Your task to perform on an android device: check the backup settings in the google photos Image 0: 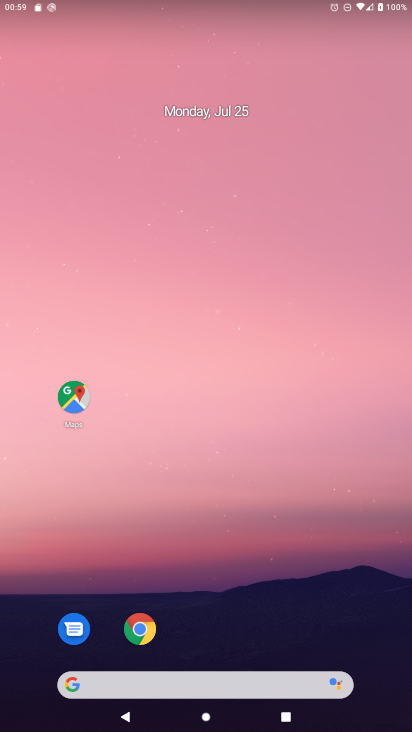
Step 0: drag from (225, 368) to (272, 116)
Your task to perform on an android device: check the backup settings in the google photos Image 1: 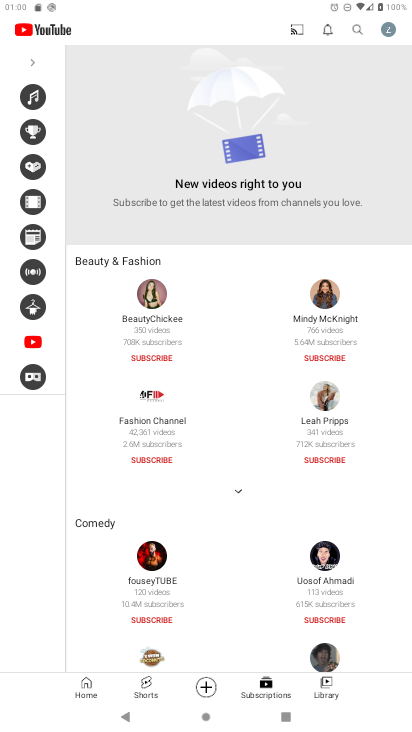
Step 1: press home button
Your task to perform on an android device: check the backup settings in the google photos Image 2: 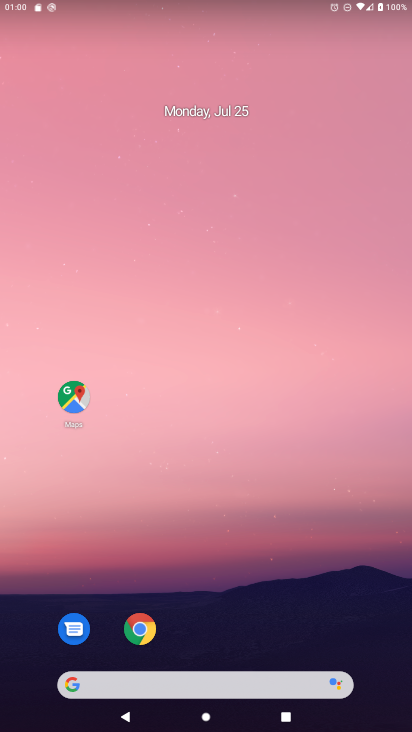
Step 2: drag from (190, 617) to (190, 136)
Your task to perform on an android device: check the backup settings in the google photos Image 3: 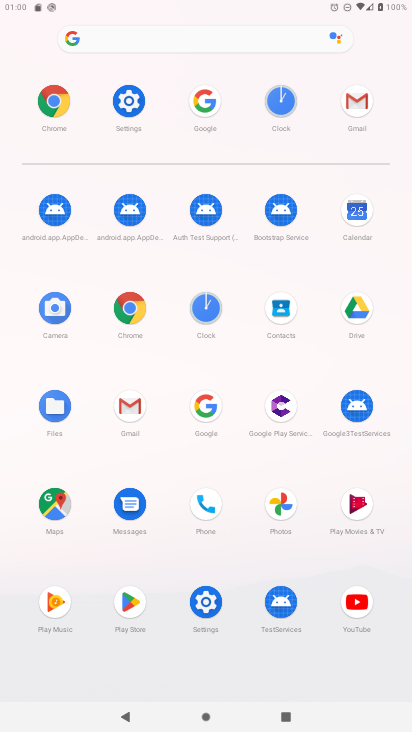
Step 3: click (280, 505)
Your task to perform on an android device: check the backup settings in the google photos Image 4: 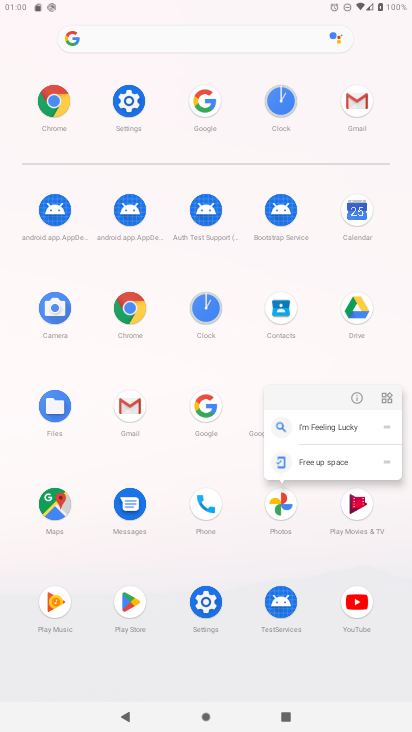
Step 4: click (280, 505)
Your task to perform on an android device: check the backup settings in the google photos Image 5: 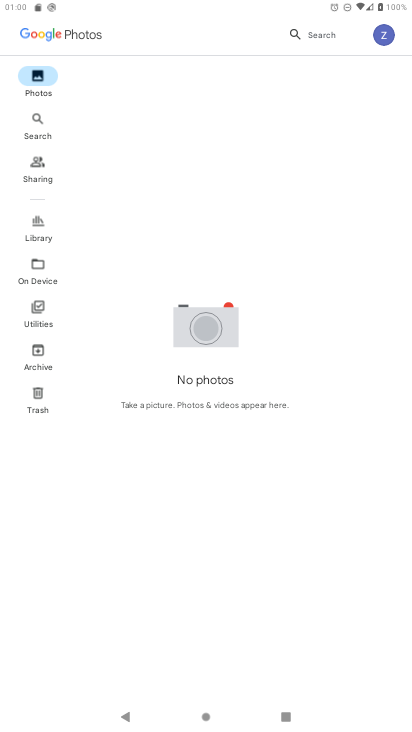
Step 5: drag from (226, 598) to (267, 312)
Your task to perform on an android device: check the backup settings in the google photos Image 6: 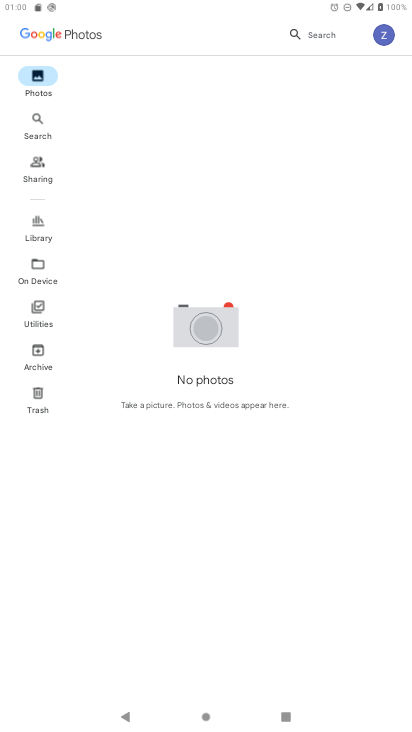
Step 6: click (386, 34)
Your task to perform on an android device: check the backup settings in the google photos Image 7: 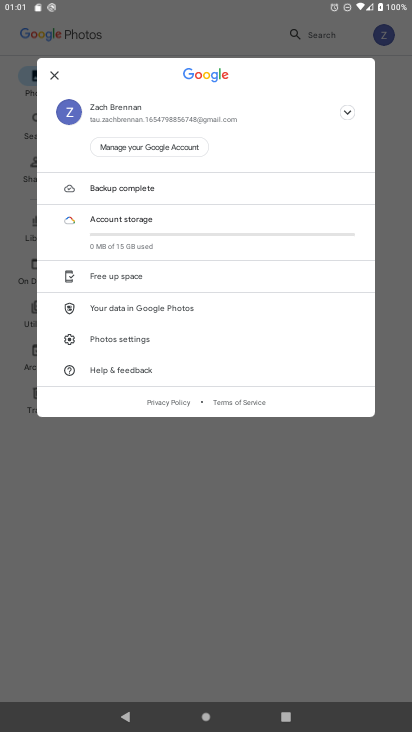
Step 7: click (97, 333)
Your task to perform on an android device: check the backup settings in the google photos Image 8: 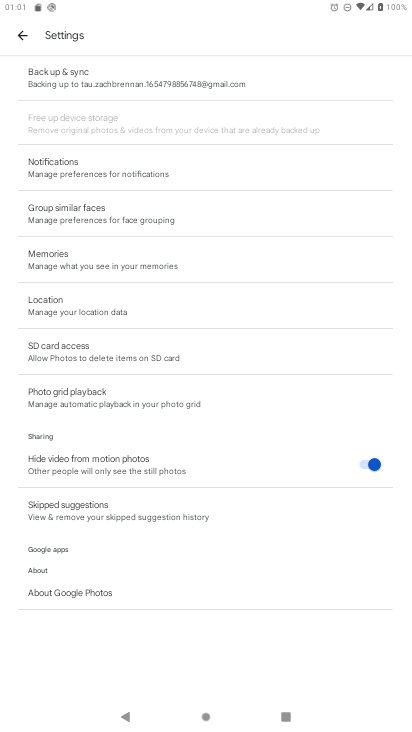
Step 8: click (105, 91)
Your task to perform on an android device: check the backup settings in the google photos Image 9: 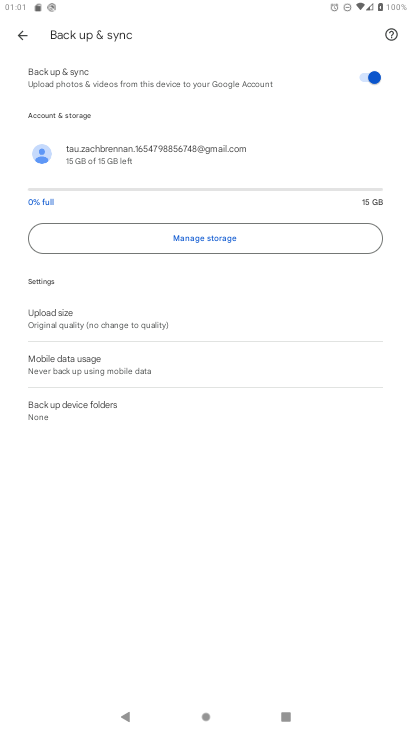
Step 9: click (238, 113)
Your task to perform on an android device: check the backup settings in the google photos Image 10: 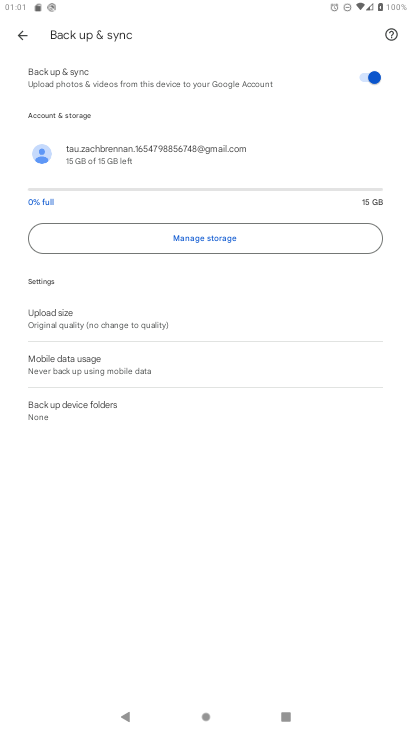
Step 10: task complete